Your task to perform on an android device: toggle sleep mode Image 0: 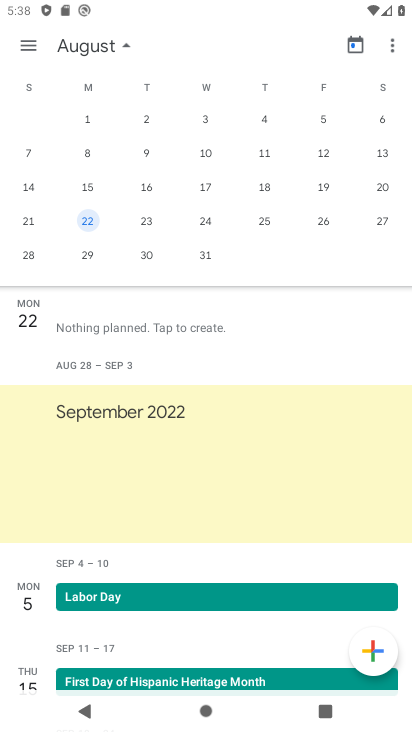
Step 0: press home button
Your task to perform on an android device: toggle sleep mode Image 1: 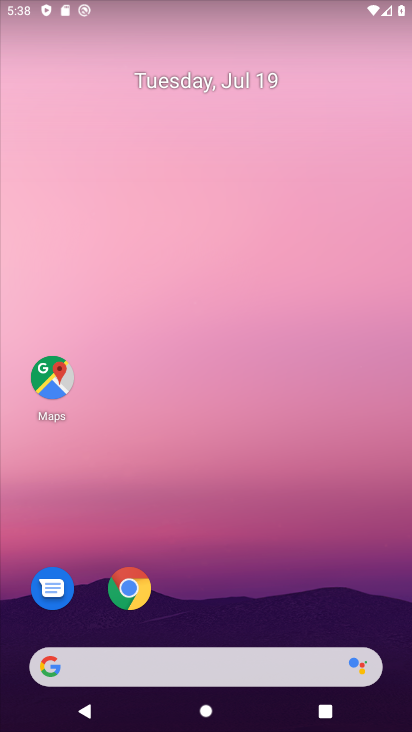
Step 1: drag from (156, 640) to (135, 223)
Your task to perform on an android device: toggle sleep mode Image 2: 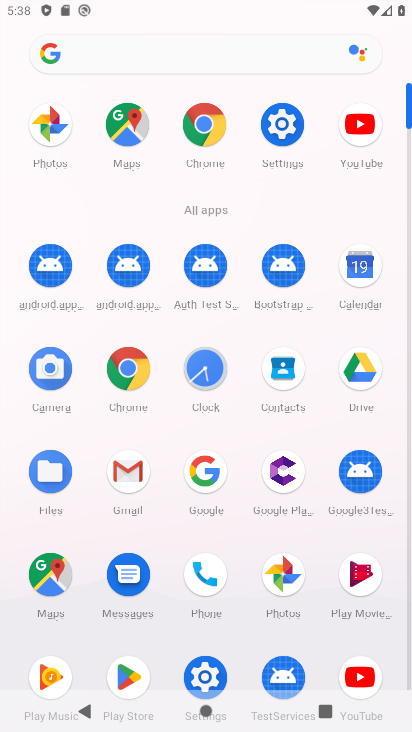
Step 2: click (290, 126)
Your task to perform on an android device: toggle sleep mode Image 3: 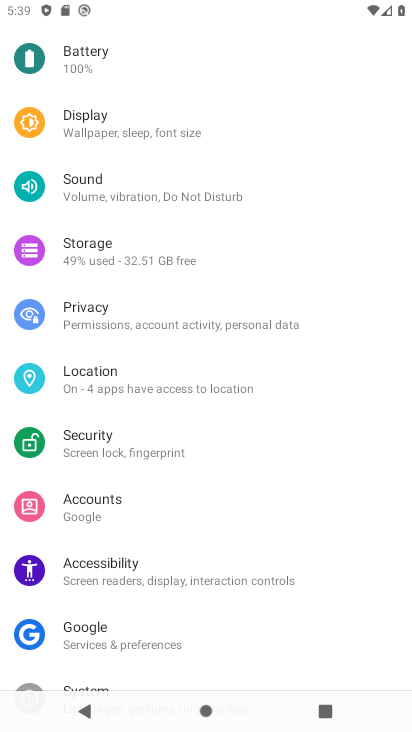
Step 3: task complete